Your task to perform on an android device: check the backup settings in the google photos Image 0: 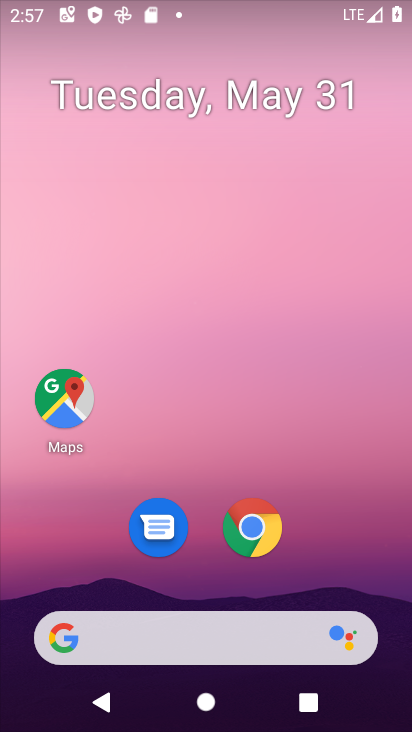
Step 0: drag from (348, 520) to (289, 46)
Your task to perform on an android device: check the backup settings in the google photos Image 1: 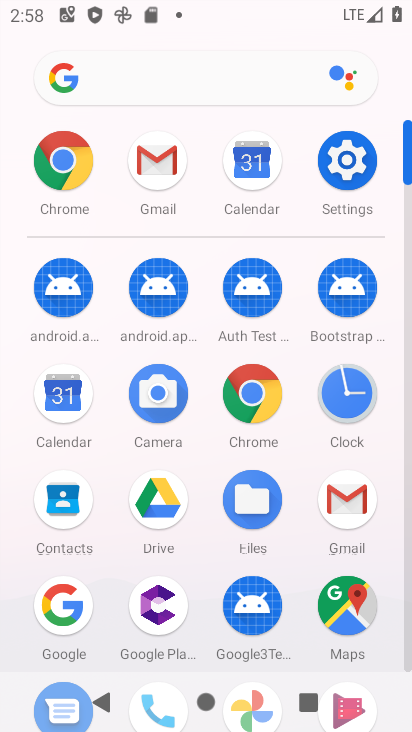
Step 1: drag from (385, 624) to (341, 394)
Your task to perform on an android device: check the backup settings in the google photos Image 2: 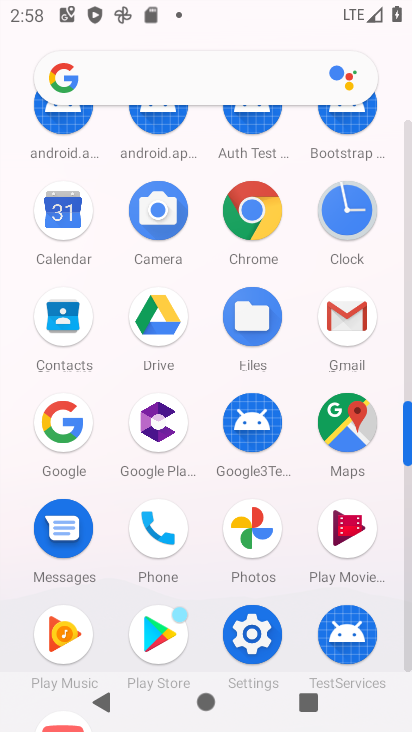
Step 2: click (261, 534)
Your task to perform on an android device: check the backup settings in the google photos Image 3: 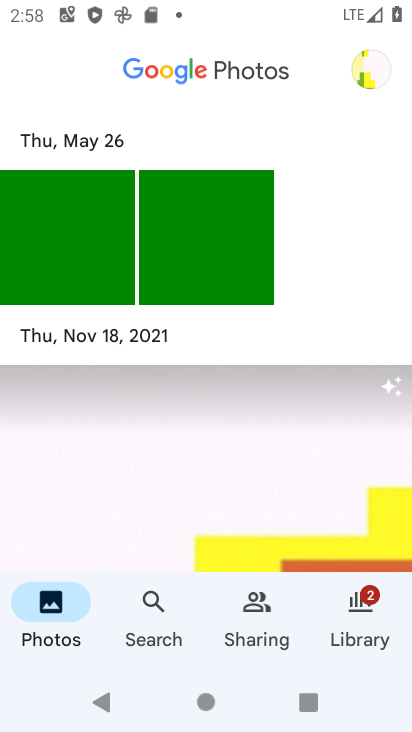
Step 3: task complete